Your task to perform on an android device: What is the recent news? Image 0: 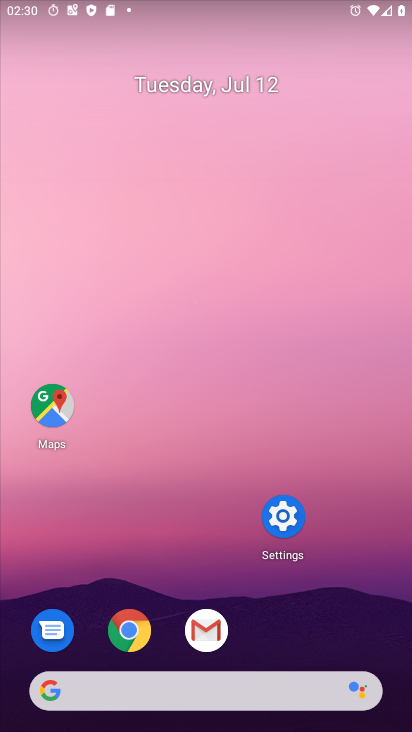
Step 0: click (225, 680)
Your task to perform on an android device: What is the recent news? Image 1: 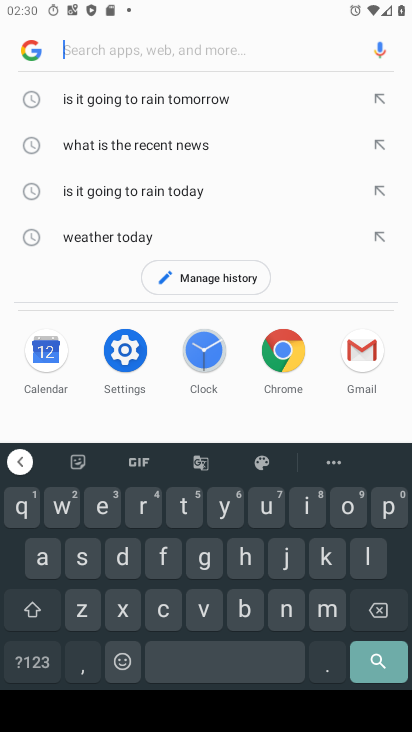
Step 1: click (143, 514)
Your task to perform on an android device: What is the recent news? Image 2: 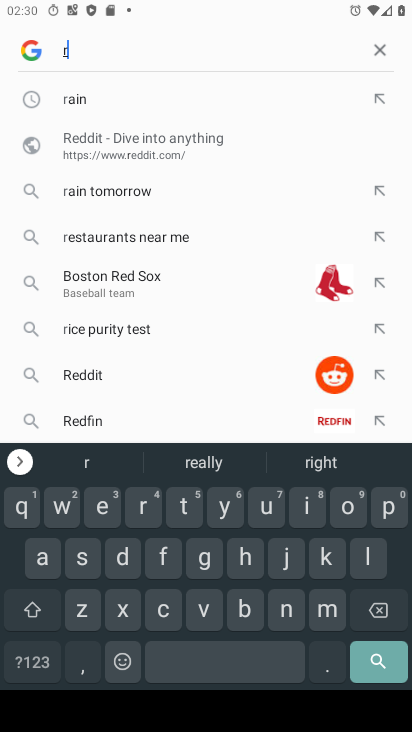
Step 2: click (108, 511)
Your task to perform on an android device: What is the recent news? Image 3: 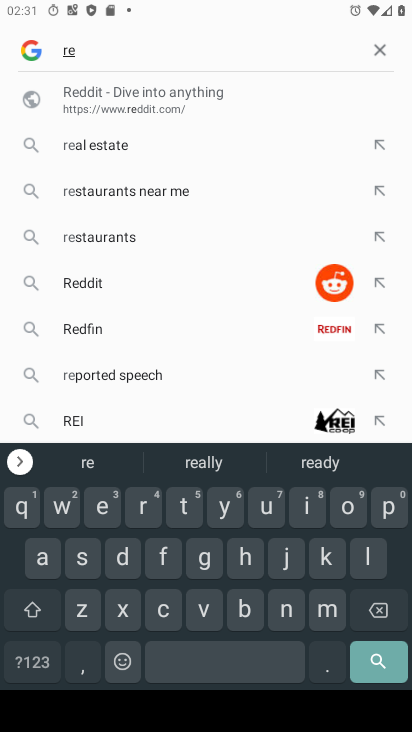
Step 3: click (157, 608)
Your task to perform on an android device: What is the recent news? Image 4: 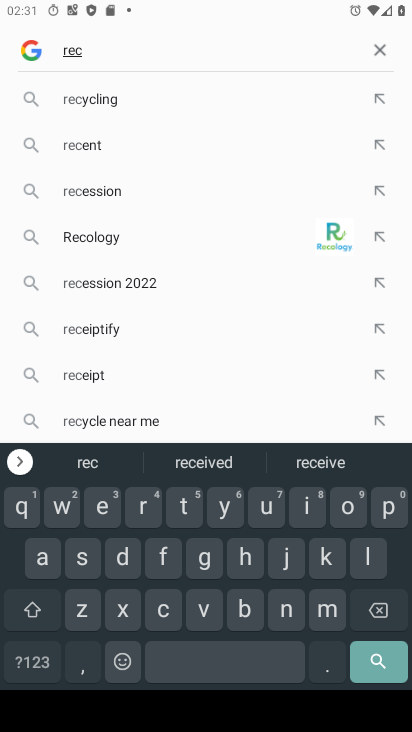
Step 4: click (101, 506)
Your task to perform on an android device: What is the recent news? Image 5: 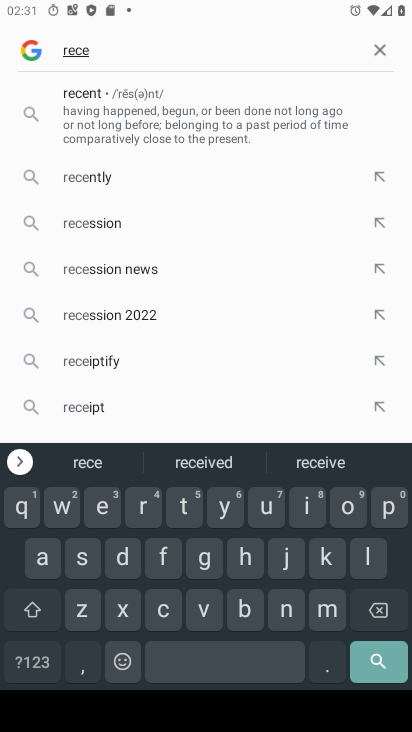
Step 5: click (283, 609)
Your task to perform on an android device: What is the recent news? Image 6: 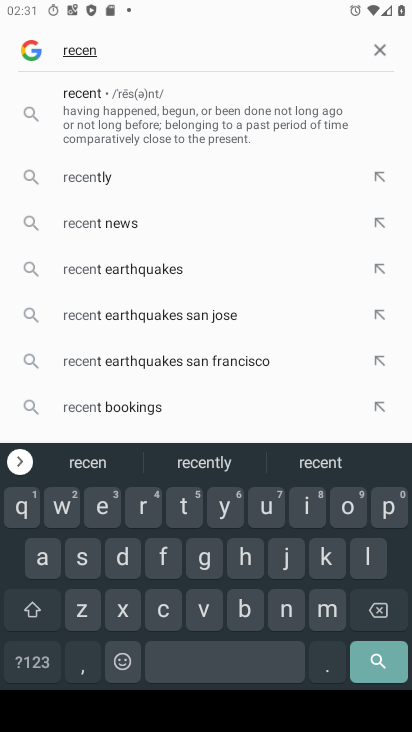
Step 6: click (317, 464)
Your task to perform on an android device: What is the recent news? Image 7: 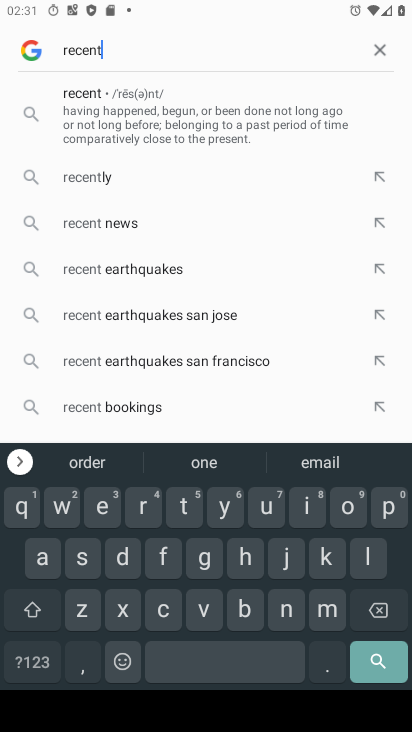
Step 7: click (288, 616)
Your task to perform on an android device: What is the recent news? Image 8: 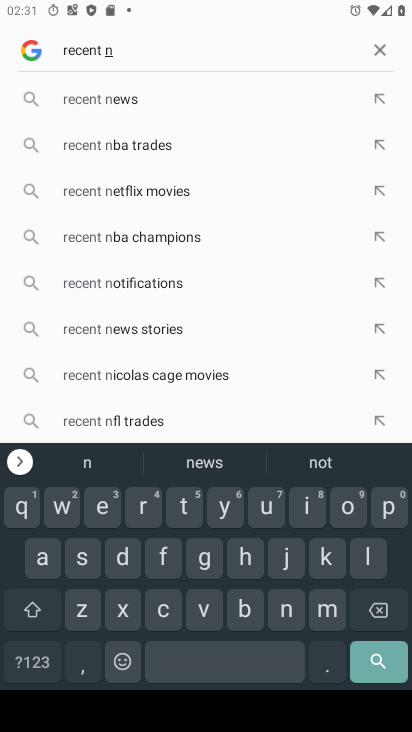
Step 8: click (112, 99)
Your task to perform on an android device: What is the recent news? Image 9: 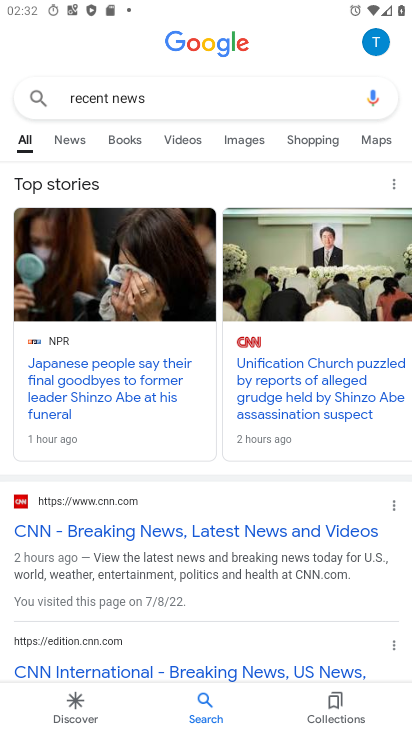
Step 9: task complete